Your task to perform on an android device: Open Google Chrome and open the bookmarks view Image 0: 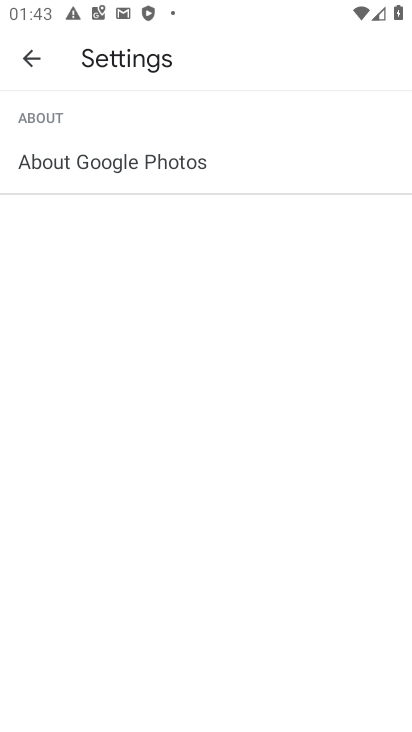
Step 0: press home button
Your task to perform on an android device: Open Google Chrome and open the bookmarks view Image 1: 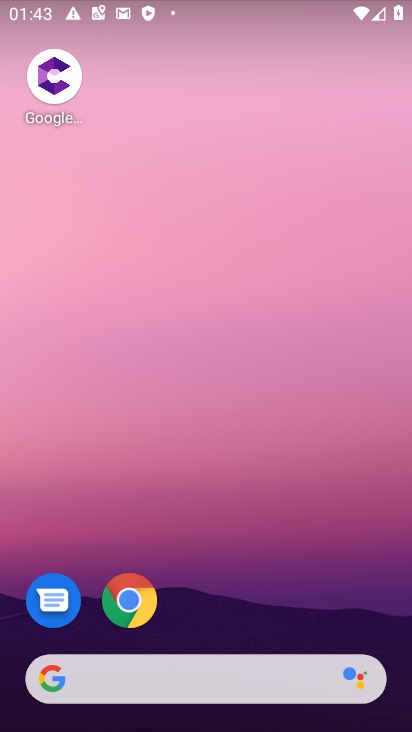
Step 1: click (129, 603)
Your task to perform on an android device: Open Google Chrome and open the bookmarks view Image 2: 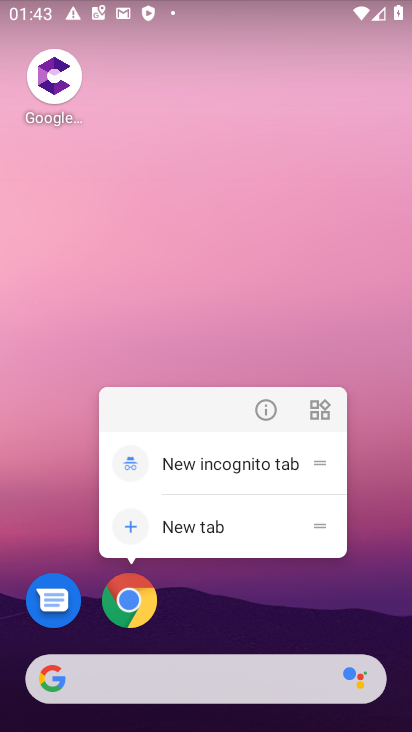
Step 2: click (129, 603)
Your task to perform on an android device: Open Google Chrome and open the bookmarks view Image 3: 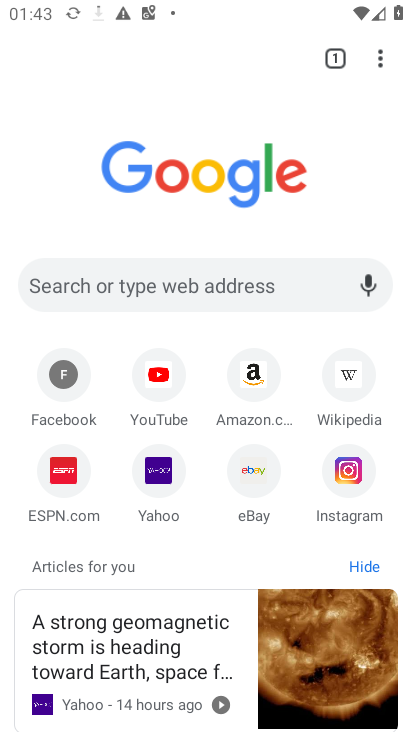
Step 3: task complete